Your task to perform on an android device: turn off improve location accuracy Image 0: 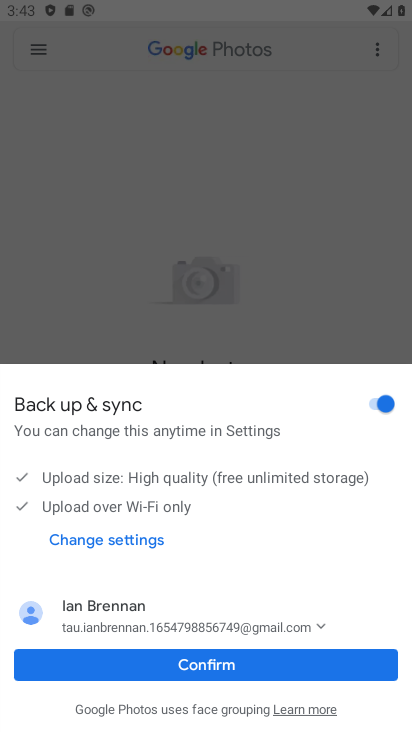
Step 0: press home button
Your task to perform on an android device: turn off improve location accuracy Image 1: 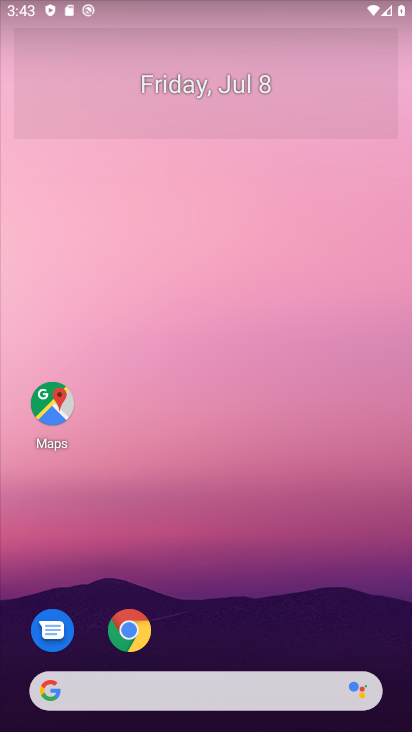
Step 1: drag from (12, 710) to (289, 25)
Your task to perform on an android device: turn off improve location accuracy Image 2: 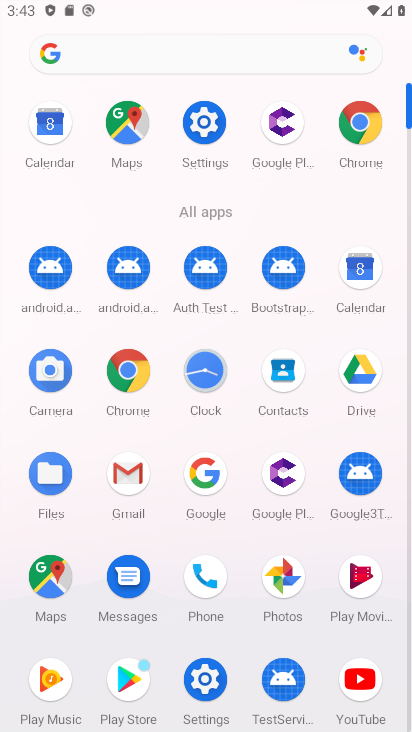
Step 2: click (210, 676)
Your task to perform on an android device: turn off improve location accuracy Image 3: 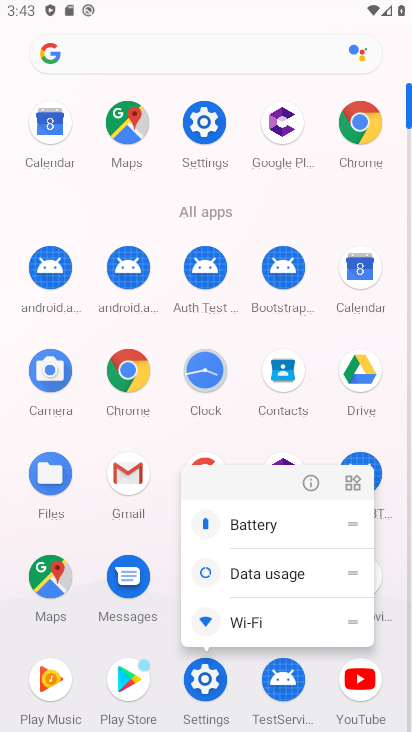
Step 3: click (210, 693)
Your task to perform on an android device: turn off improve location accuracy Image 4: 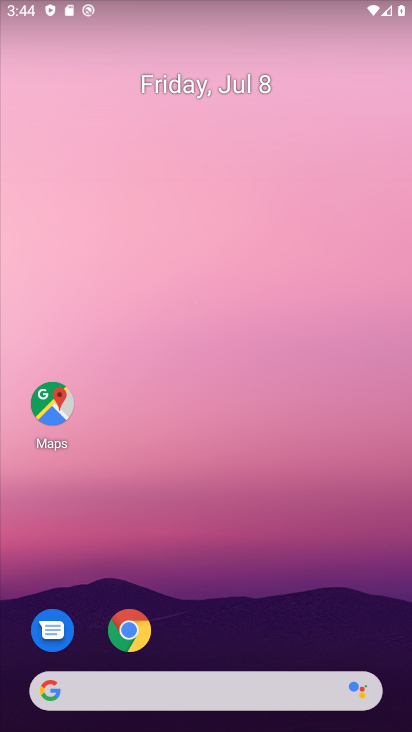
Step 4: click (126, 629)
Your task to perform on an android device: turn off improve location accuracy Image 5: 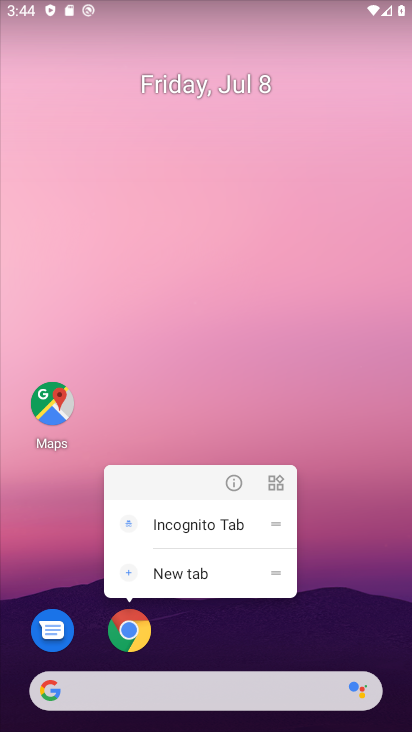
Step 5: click (130, 640)
Your task to perform on an android device: turn off improve location accuracy Image 6: 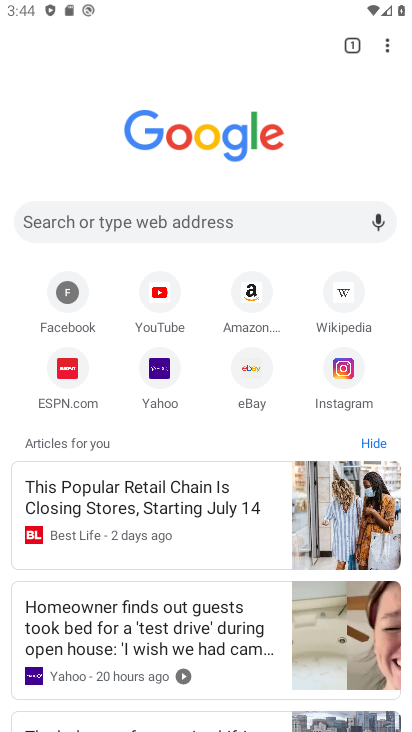
Step 6: task complete